Your task to perform on an android device: all mails in gmail Image 0: 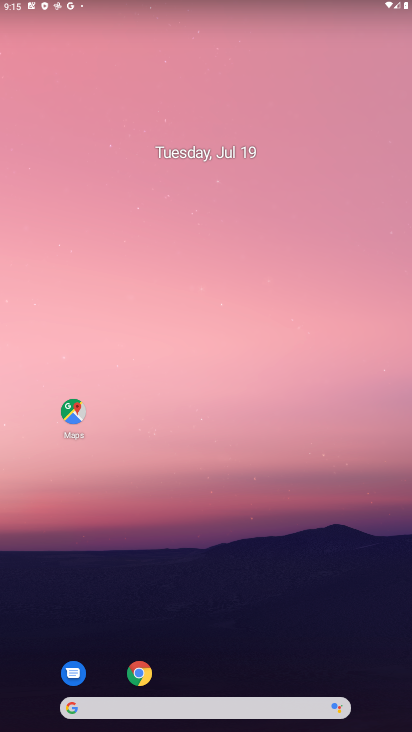
Step 0: drag from (289, 685) to (254, 29)
Your task to perform on an android device: all mails in gmail Image 1: 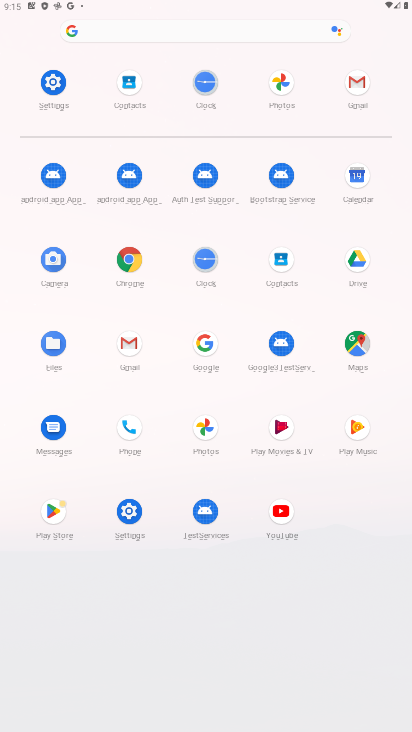
Step 1: click (358, 89)
Your task to perform on an android device: all mails in gmail Image 2: 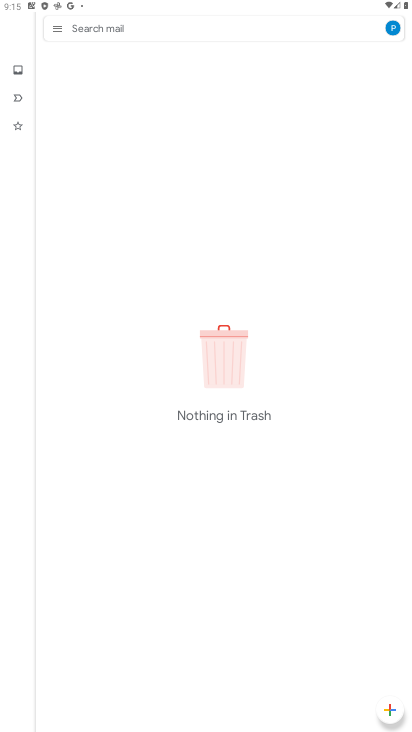
Step 2: click (55, 32)
Your task to perform on an android device: all mails in gmail Image 3: 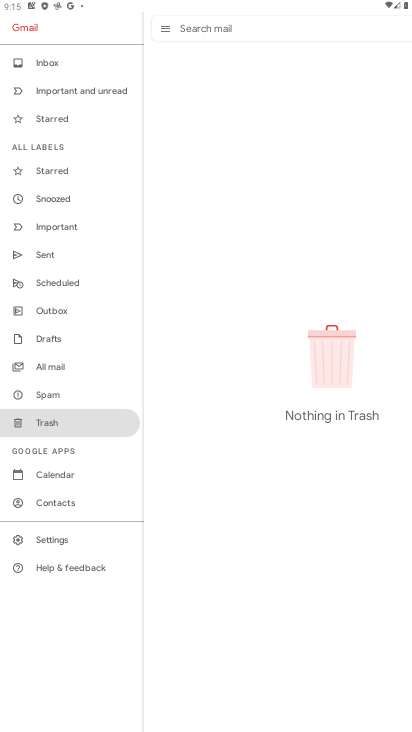
Step 3: click (63, 369)
Your task to perform on an android device: all mails in gmail Image 4: 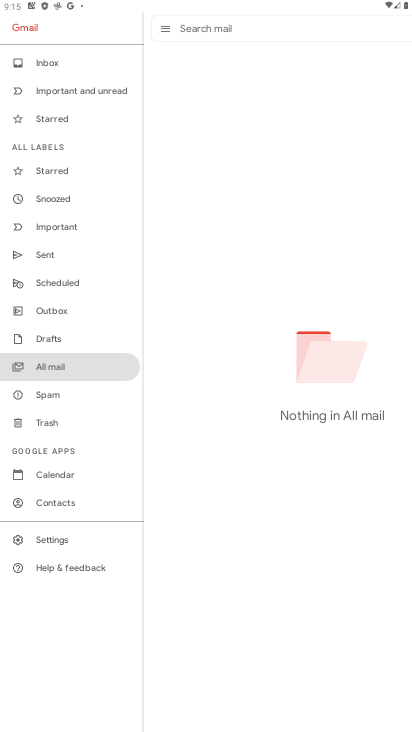
Step 4: task complete